Your task to perform on an android device: turn on priority inbox in the gmail app Image 0: 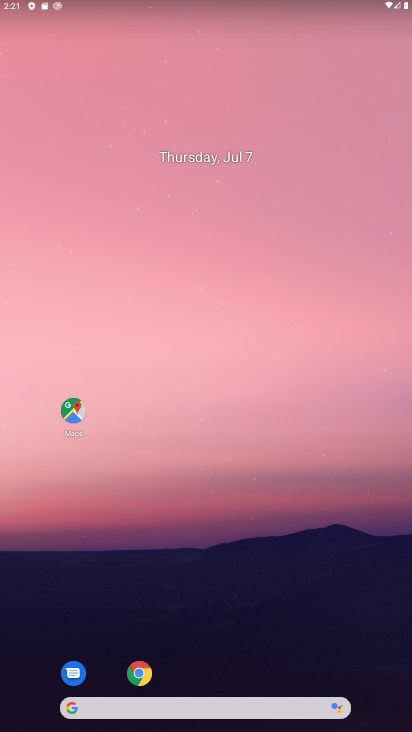
Step 0: drag from (219, 676) to (199, 30)
Your task to perform on an android device: turn on priority inbox in the gmail app Image 1: 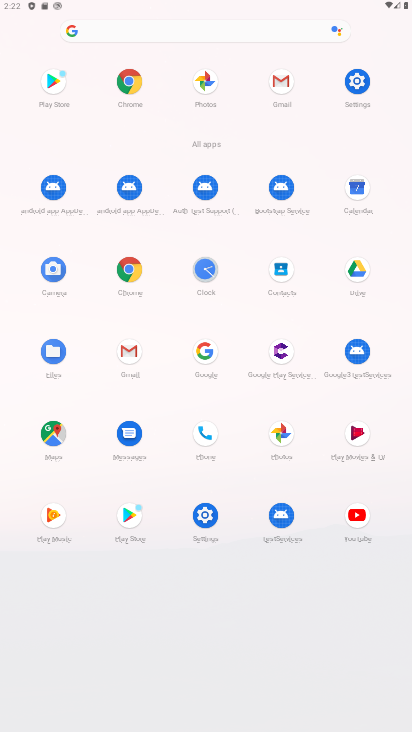
Step 1: click (138, 359)
Your task to perform on an android device: turn on priority inbox in the gmail app Image 2: 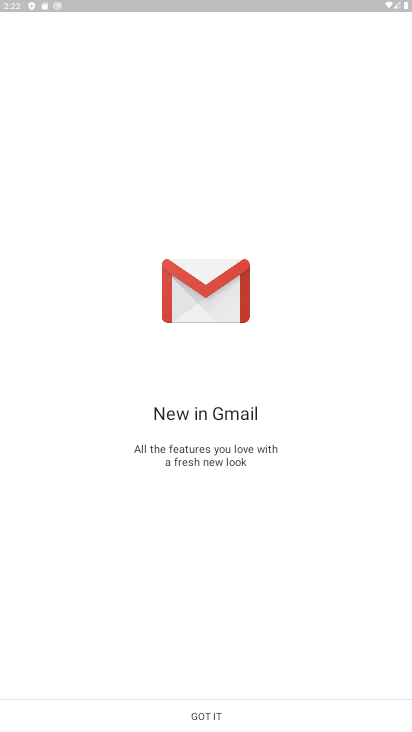
Step 2: click (232, 717)
Your task to perform on an android device: turn on priority inbox in the gmail app Image 3: 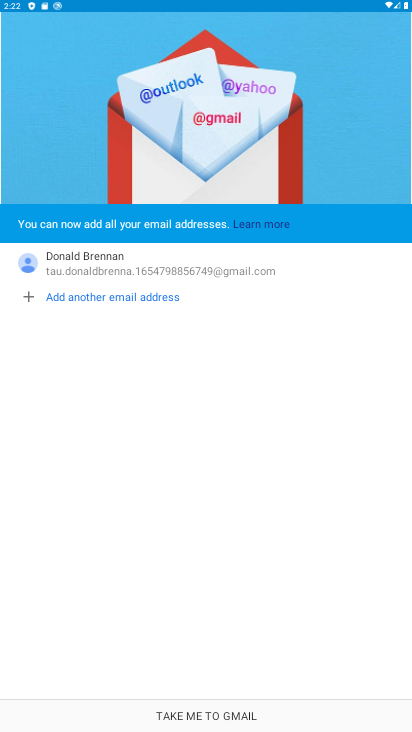
Step 3: drag from (98, 261) to (142, 603)
Your task to perform on an android device: turn on priority inbox in the gmail app Image 4: 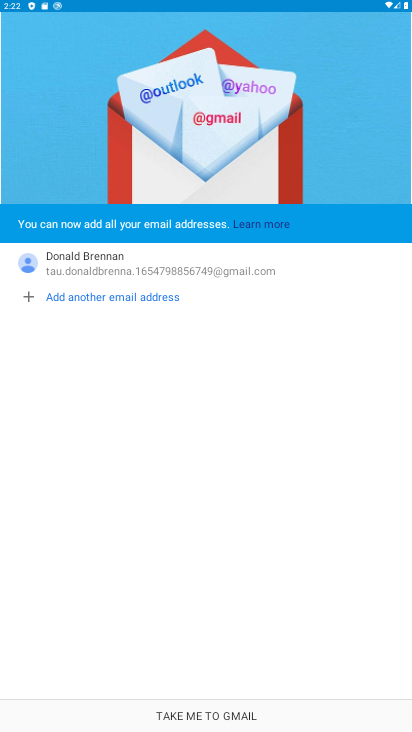
Step 4: click (189, 712)
Your task to perform on an android device: turn on priority inbox in the gmail app Image 5: 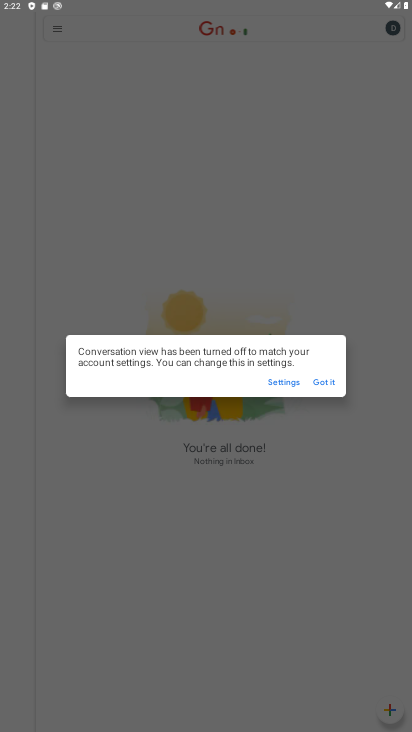
Step 5: click (327, 381)
Your task to perform on an android device: turn on priority inbox in the gmail app Image 6: 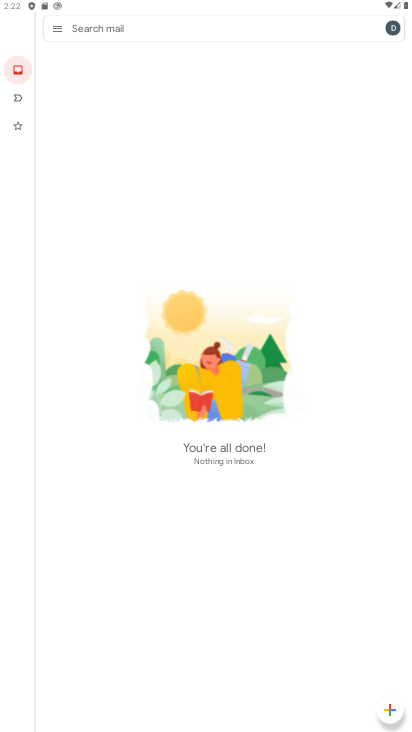
Step 6: click (56, 29)
Your task to perform on an android device: turn on priority inbox in the gmail app Image 7: 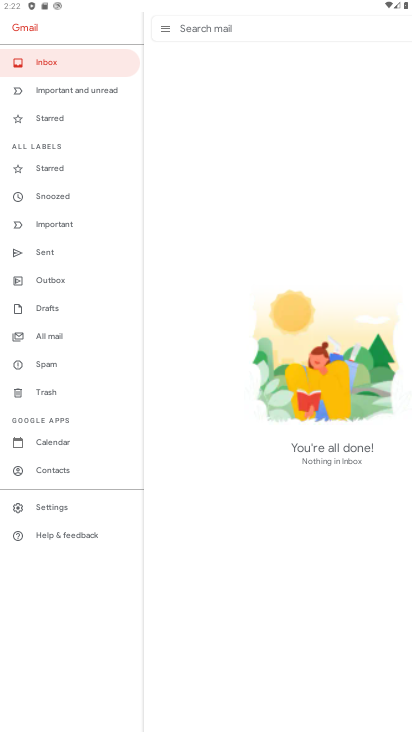
Step 7: click (62, 513)
Your task to perform on an android device: turn on priority inbox in the gmail app Image 8: 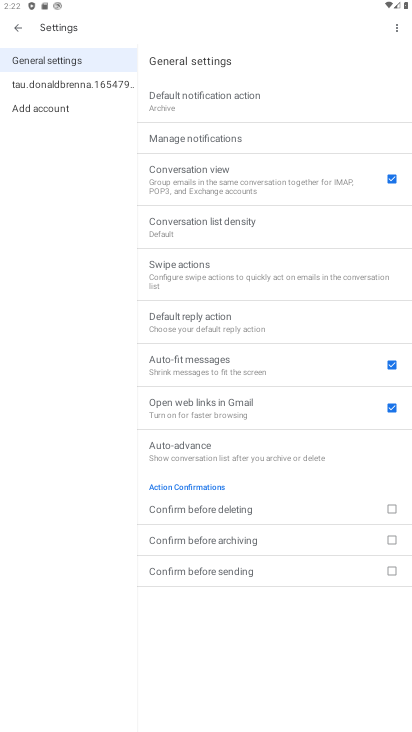
Step 8: click (50, 83)
Your task to perform on an android device: turn on priority inbox in the gmail app Image 9: 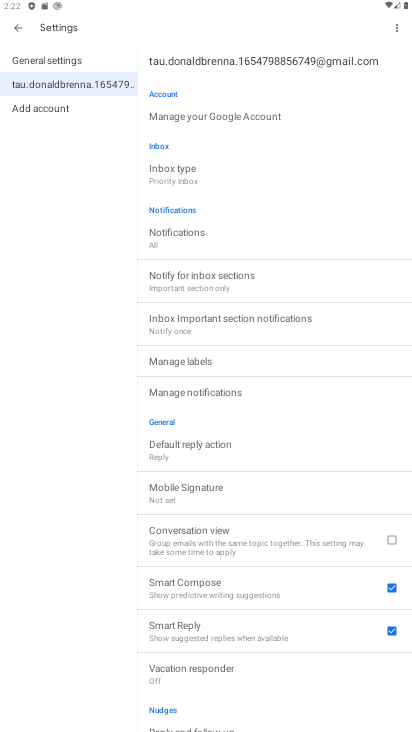
Step 9: drag from (259, 573) to (246, 520)
Your task to perform on an android device: turn on priority inbox in the gmail app Image 10: 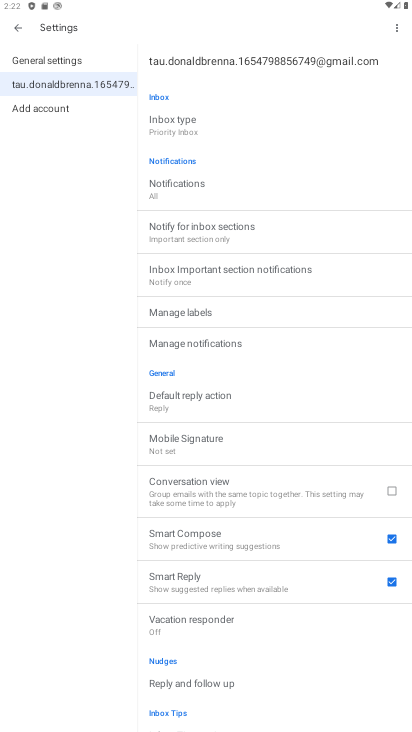
Step 10: click (154, 128)
Your task to perform on an android device: turn on priority inbox in the gmail app Image 11: 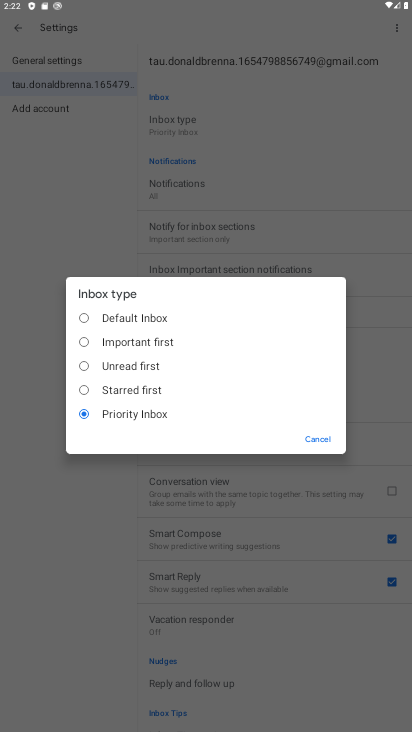
Step 11: click (154, 417)
Your task to perform on an android device: turn on priority inbox in the gmail app Image 12: 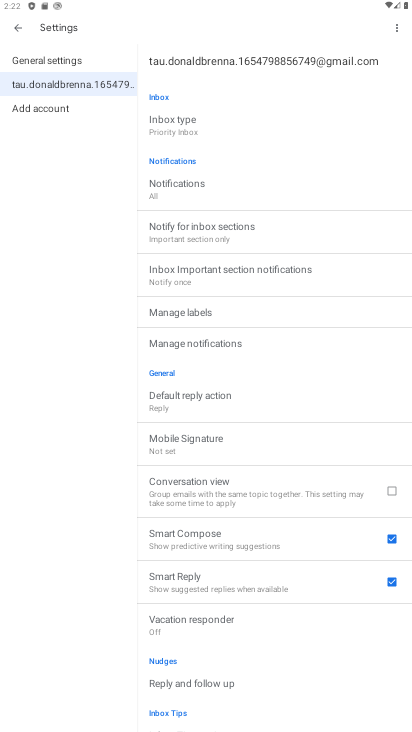
Step 12: task complete